Your task to perform on an android device: Open eBay Image 0: 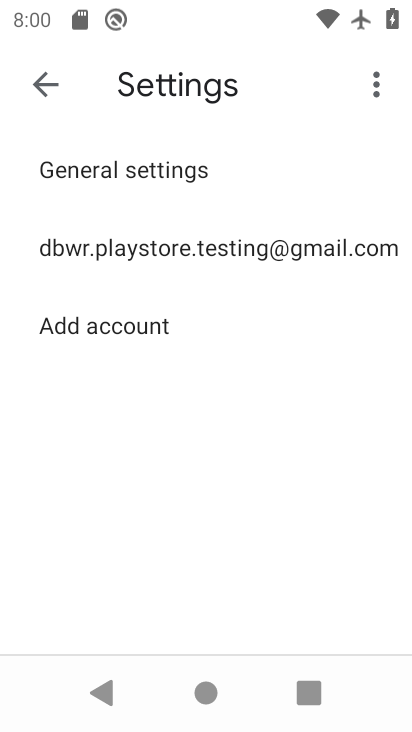
Step 0: press home button
Your task to perform on an android device: Open eBay Image 1: 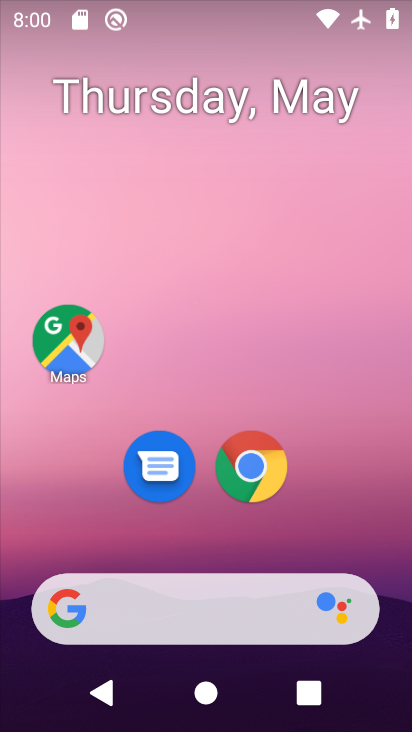
Step 1: click (193, 603)
Your task to perform on an android device: Open eBay Image 2: 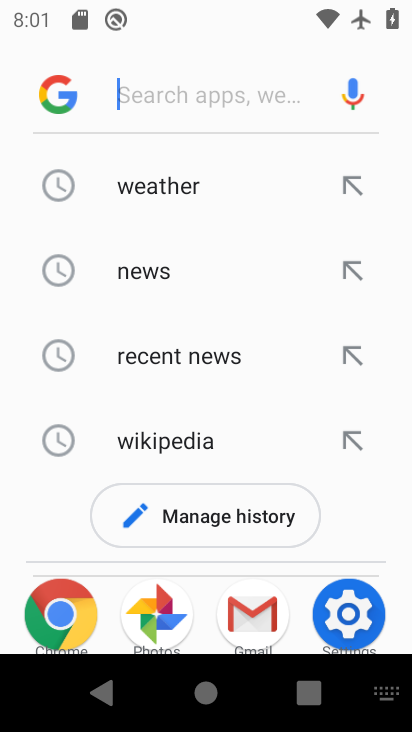
Step 2: type "ebay.com"
Your task to perform on an android device: Open eBay Image 3: 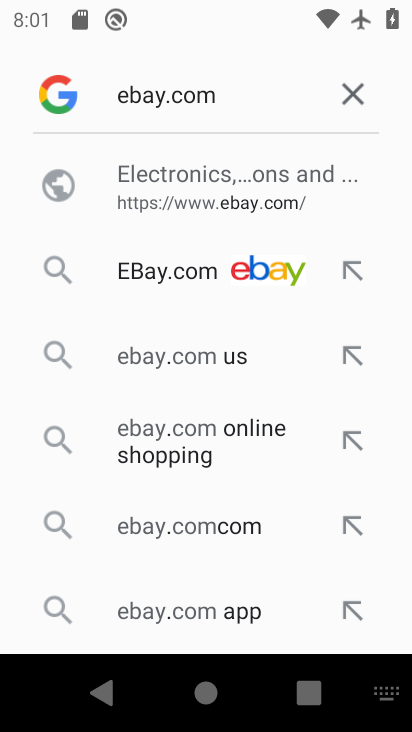
Step 3: click (215, 179)
Your task to perform on an android device: Open eBay Image 4: 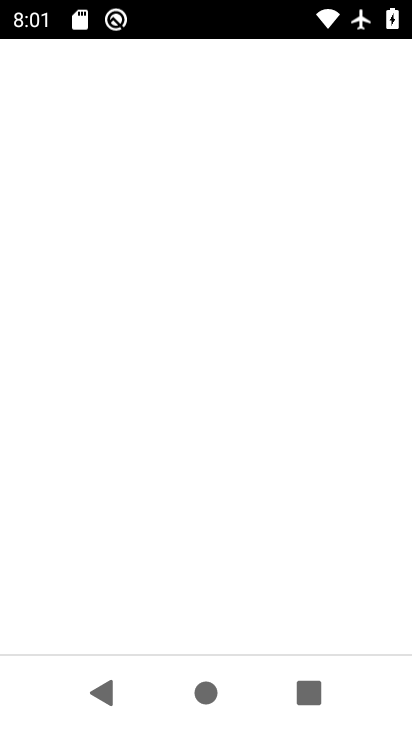
Step 4: task complete